Your task to perform on an android device: see sites visited before in the chrome app Image 0: 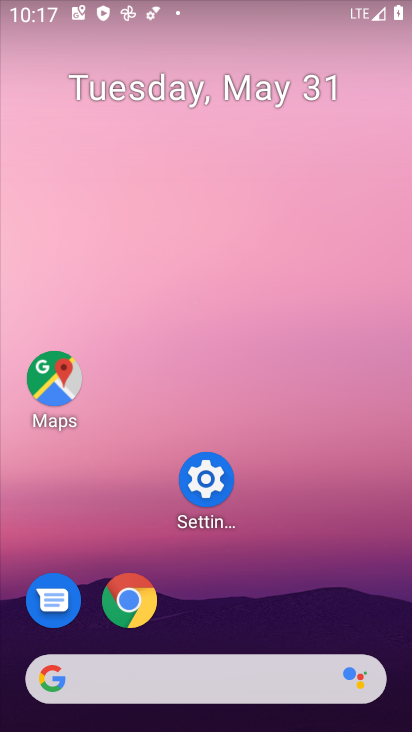
Step 0: press home button
Your task to perform on an android device: see sites visited before in the chrome app Image 1: 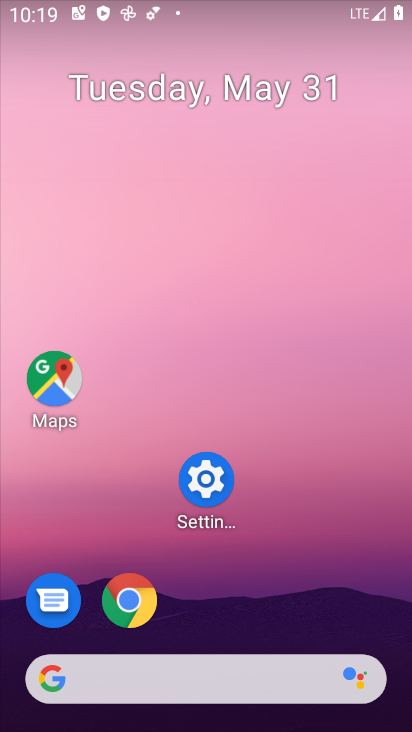
Step 1: click (138, 597)
Your task to perform on an android device: see sites visited before in the chrome app Image 2: 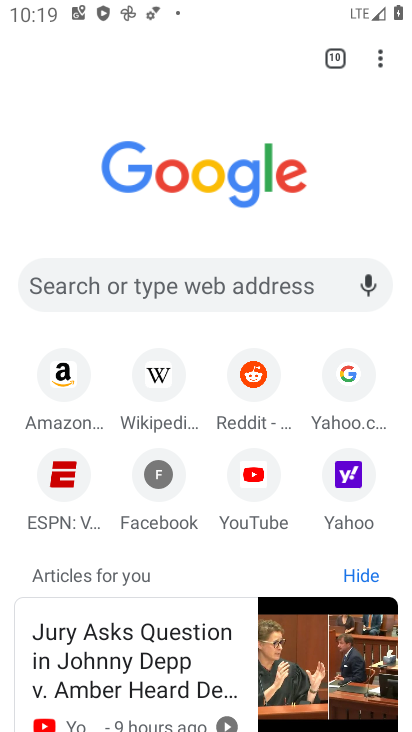
Step 2: click (389, 49)
Your task to perform on an android device: see sites visited before in the chrome app Image 3: 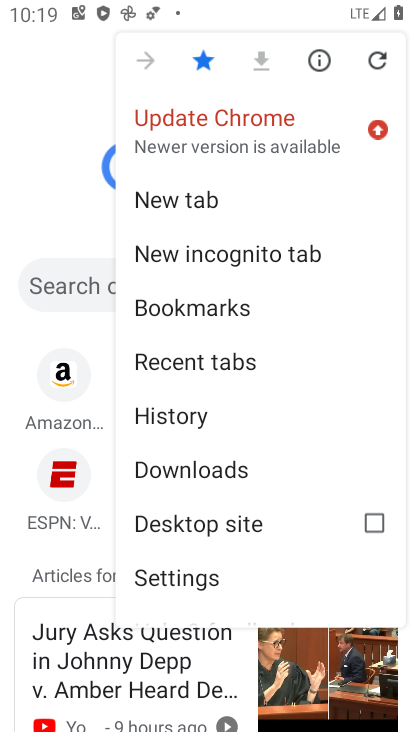
Step 3: click (194, 569)
Your task to perform on an android device: see sites visited before in the chrome app Image 4: 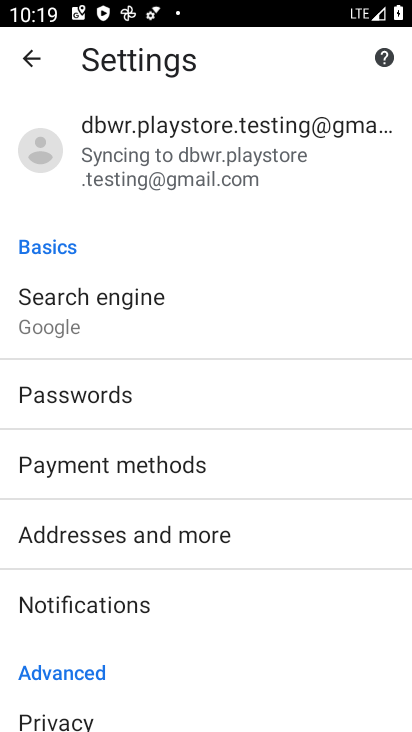
Step 4: drag from (177, 634) to (257, 114)
Your task to perform on an android device: see sites visited before in the chrome app Image 5: 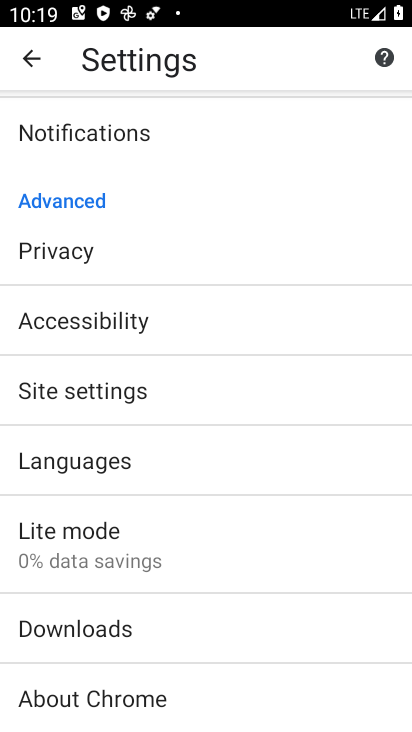
Step 5: click (94, 393)
Your task to perform on an android device: see sites visited before in the chrome app Image 6: 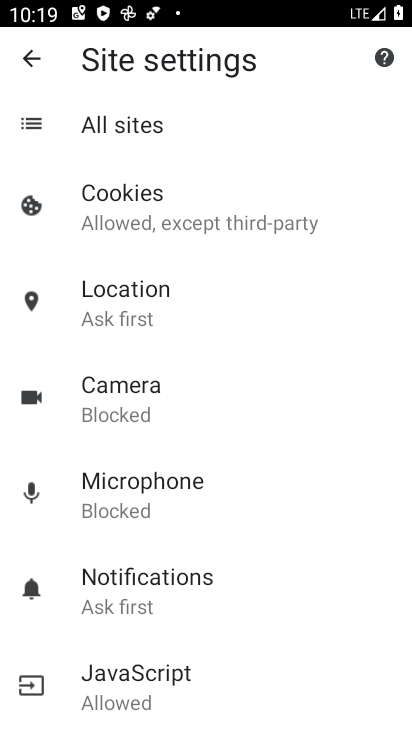
Step 6: click (121, 129)
Your task to perform on an android device: see sites visited before in the chrome app Image 7: 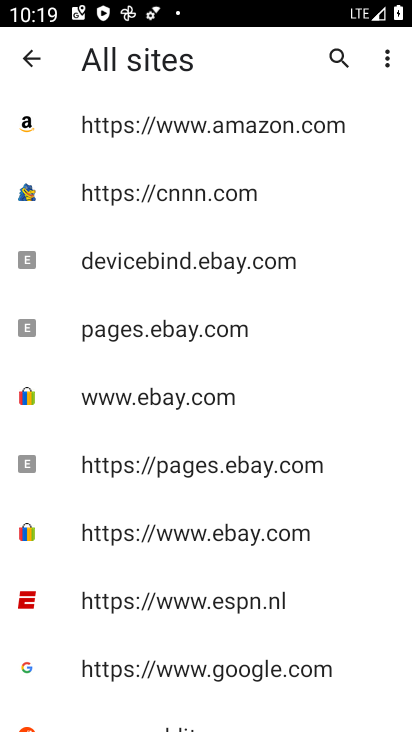
Step 7: task complete